Your task to perform on an android device: Is it going to rain tomorrow? Image 0: 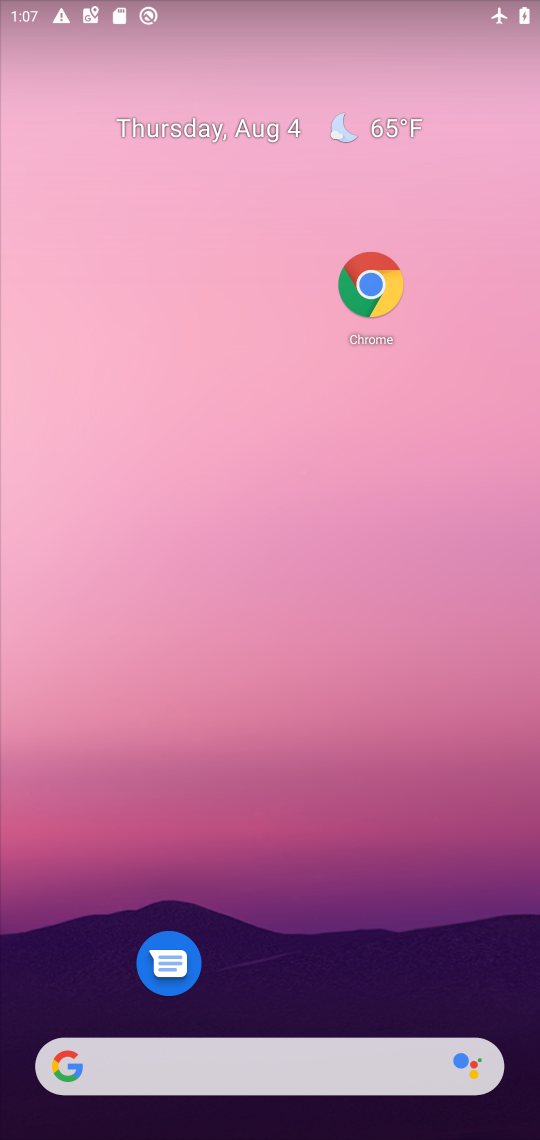
Step 0: drag from (439, 1017) to (400, 52)
Your task to perform on an android device: Is it going to rain tomorrow? Image 1: 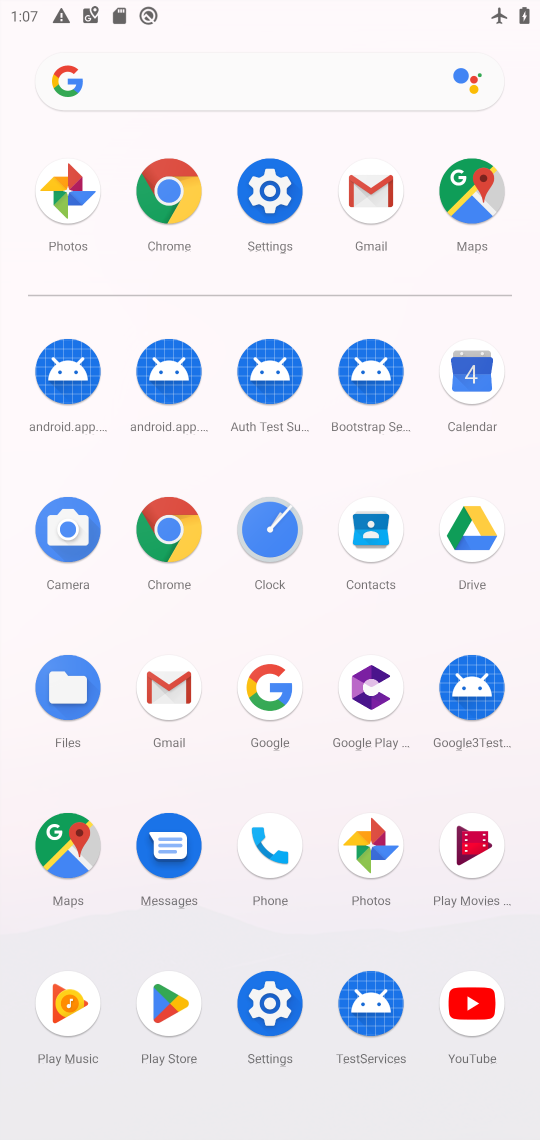
Step 1: click (177, 185)
Your task to perform on an android device: Is it going to rain tomorrow? Image 2: 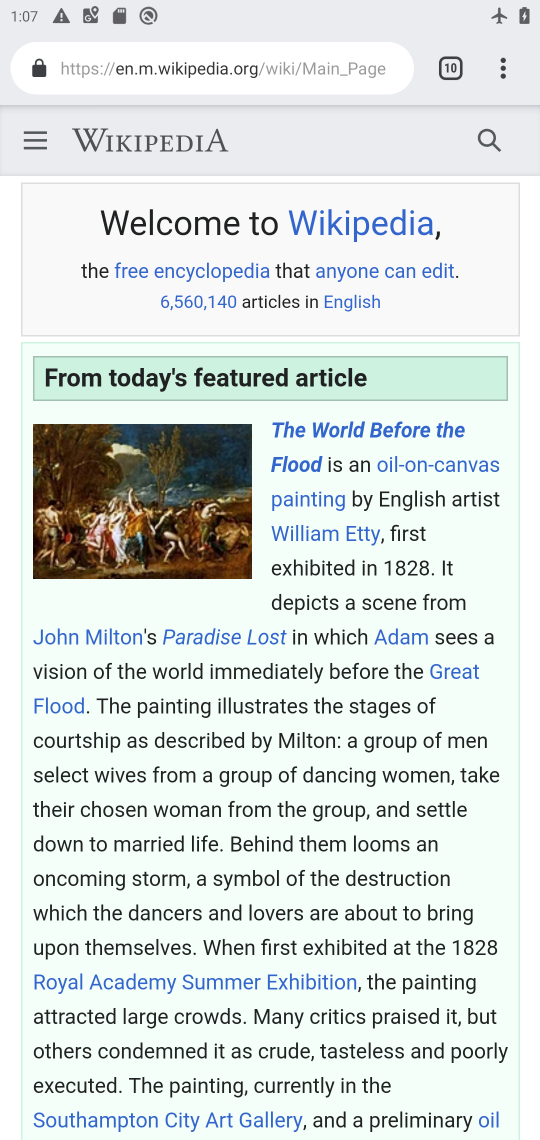
Step 2: click (506, 76)
Your task to perform on an android device: Is it going to rain tomorrow? Image 3: 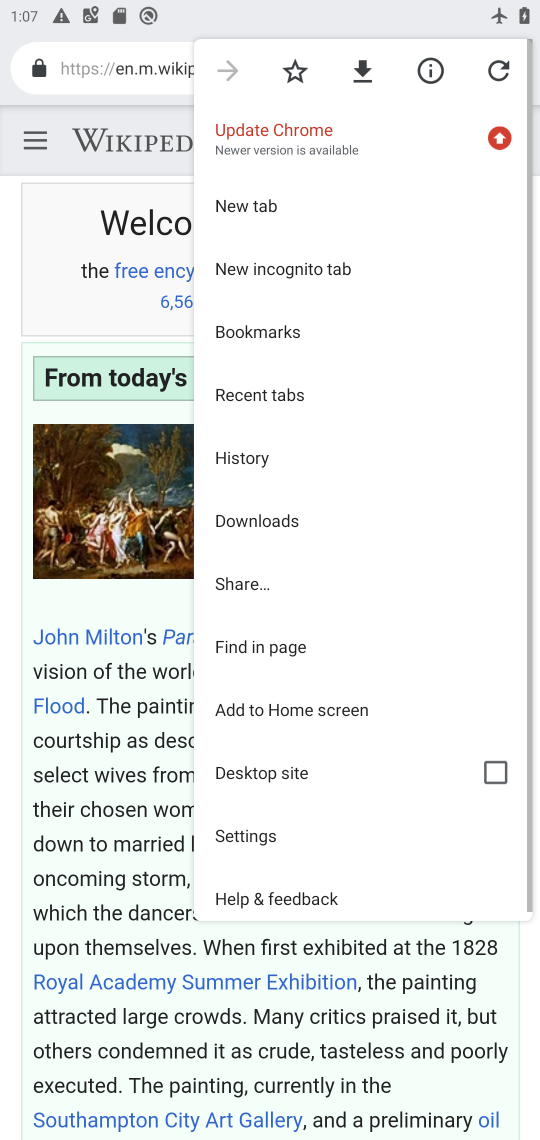
Step 3: click (267, 207)
Your task to perform on an android device: Is it going to rain tomorrow? Image 4: 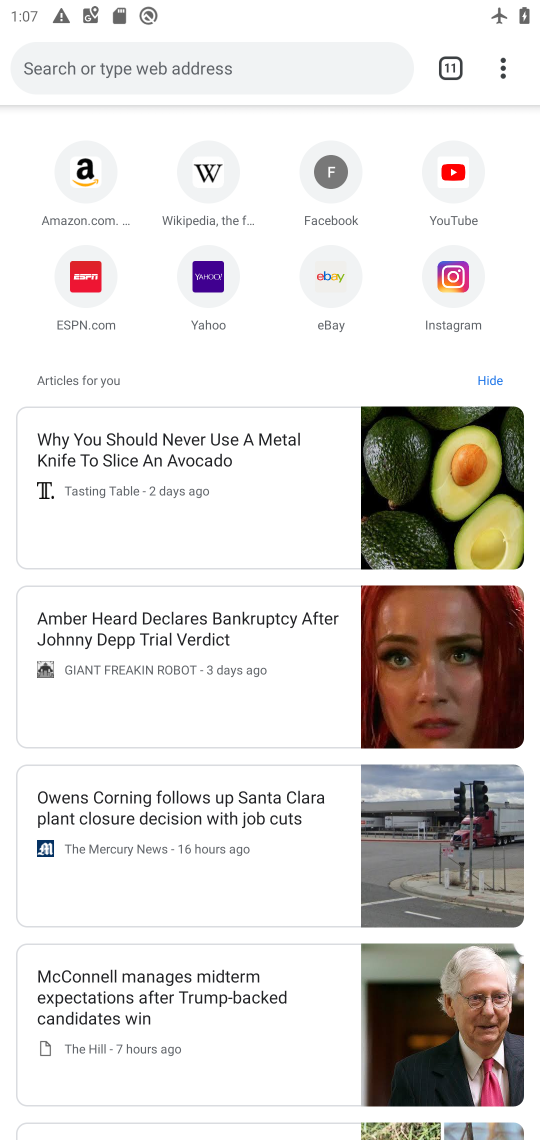
Step 4: click (211, 67)
Your task to perform on an android device: Is it going to rain tomorrow? Image 5: 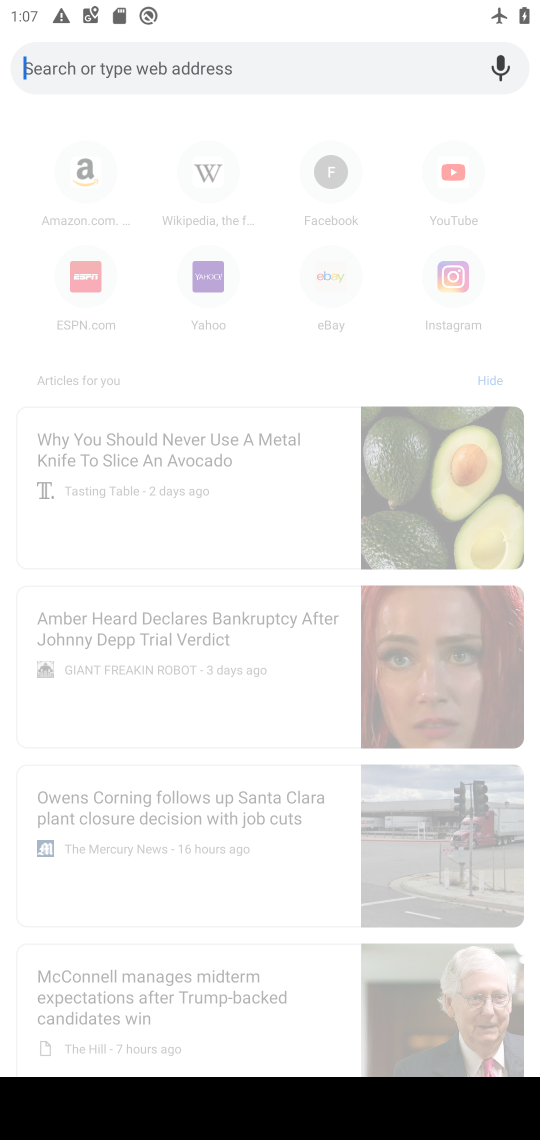
Step 5: type "Is it going to rain tomorrow?"
Your task to perform on an android device: Is it going to rain tomorrow? Image 6: 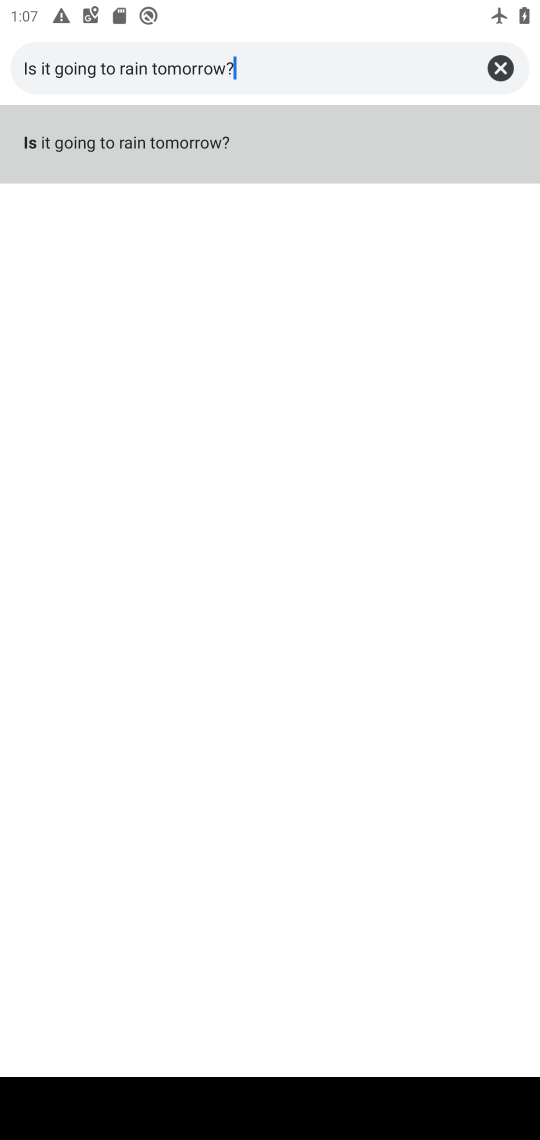
Step 6: click (309, 131)
Your task to perform on an android device: Is it going to rain tomorrow? Image 7: 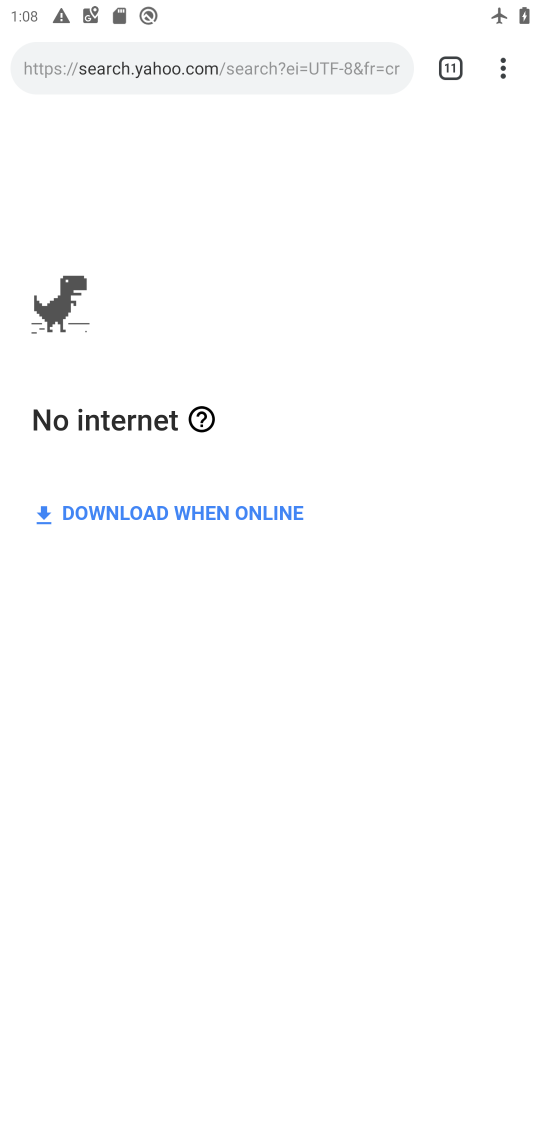
Step 7: task complete